Your task to perform on an android device: Open location settings Image 0: 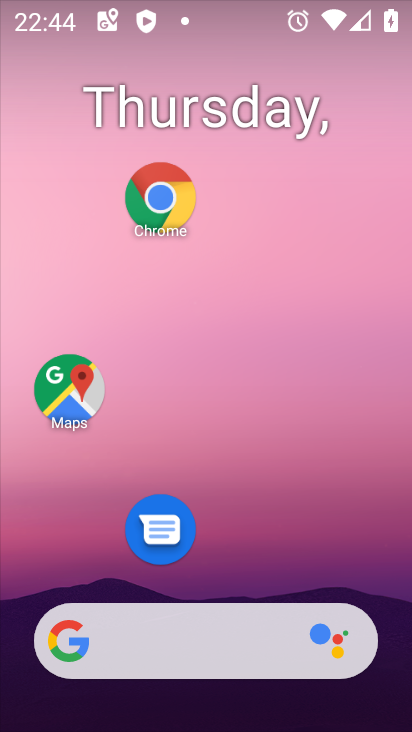
Step 0: drag from (279, 499) to (227, 113)
Your task to perform on an android device: Open location settings Image 1: 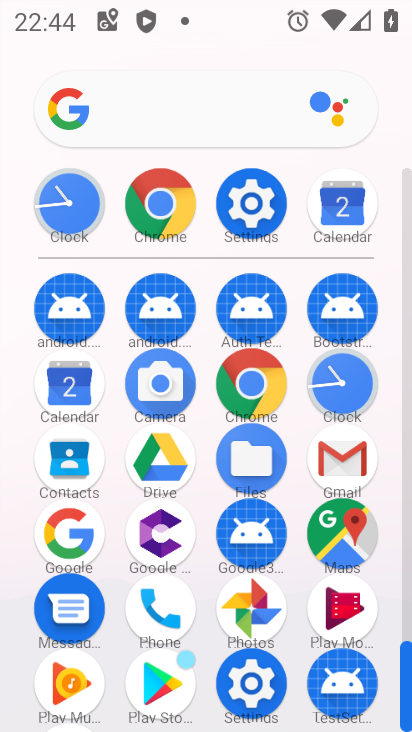
Step 1: click (254, 203)
Your task to perform on an android device: Open location settings Image 2: 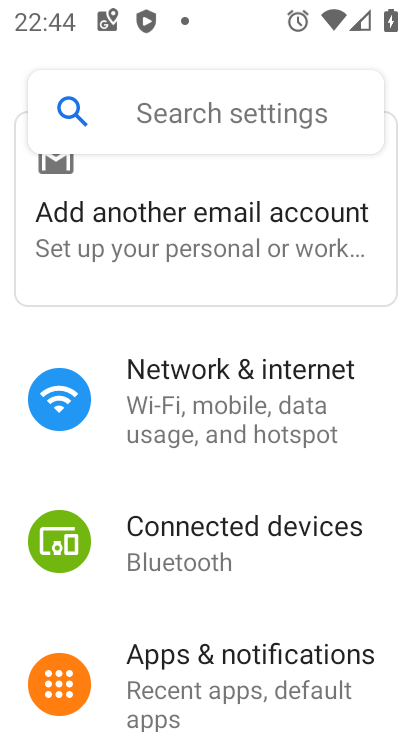
Step 2: drag from (245, 576) to (232, 248)
Your task to perform on an android device: Open location settings Image 3: 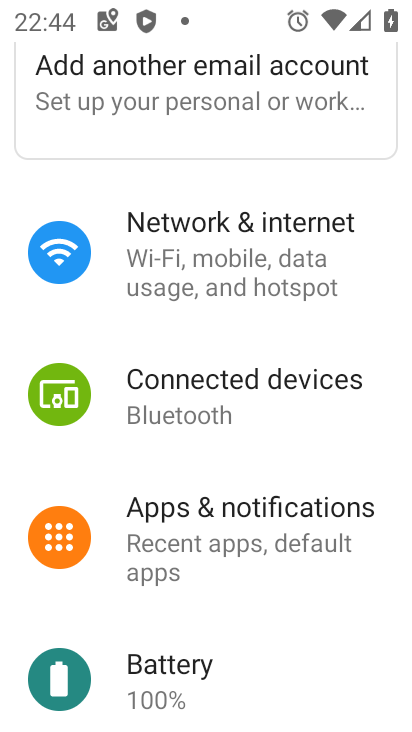
Step 3: drag from (225, 582) to (202, 355)
Your task to perform on an android device: Open location settings Image 4: 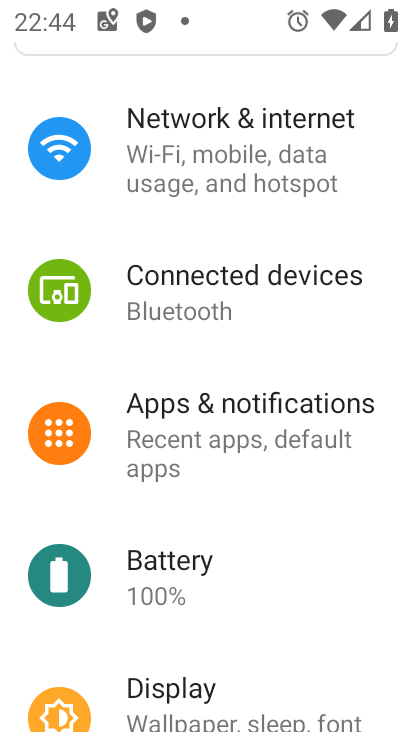
Step 4: drag from (254, 565) to (248, 247)
Your task to perform on an android device: Open location settings Image 5: 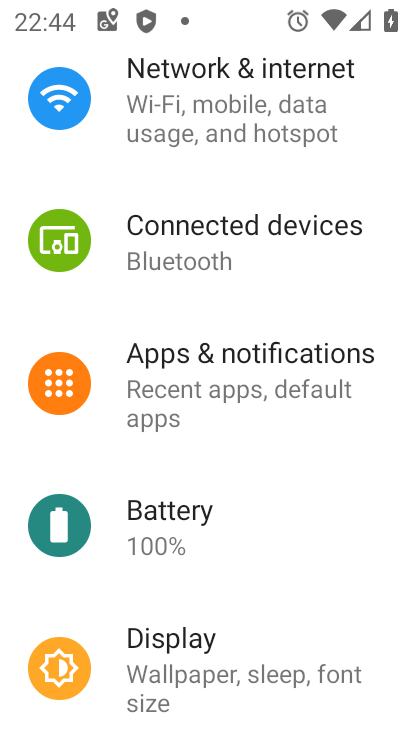
Step 5: drag from (228, 595) to (167, 180)
Your task to perform on an android device: Open location settings Image 6: 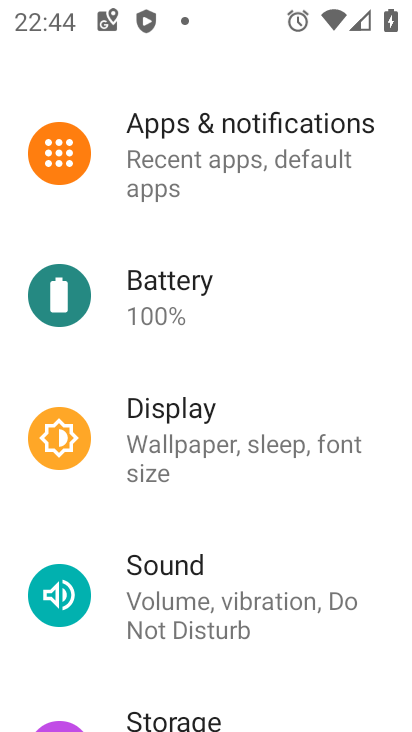
Step 6: drag from (180, 661) to (118, 228)
Your task to perform on an android device: Open location settings Image 7: 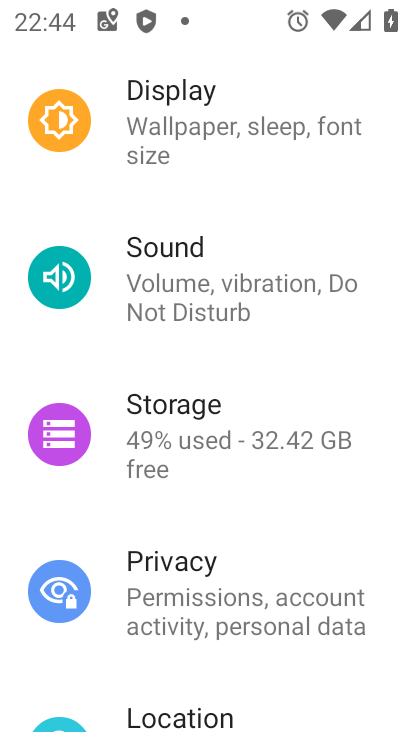
Step 7: click (185, 704)
Your task to perform on an android device: Open location settings Image 8: 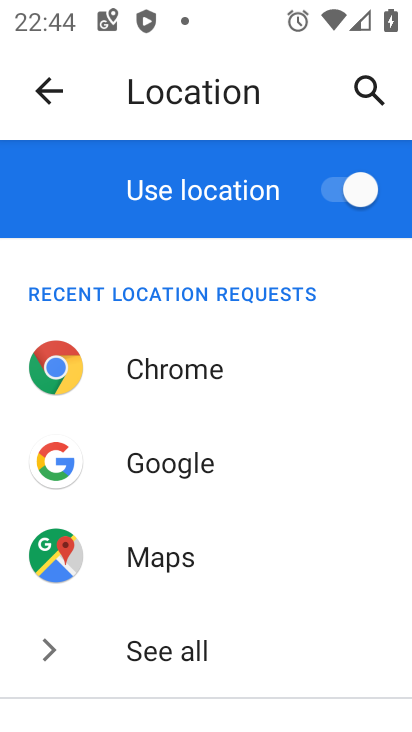
Step 8: task complete